Your task to perform on an android device: Open Google Chrome Image 0: 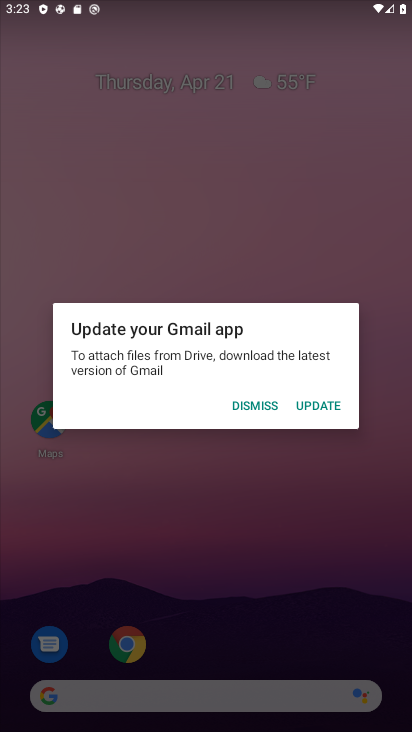
Step 0: press home button
Your task to perform on an android device: Open Google Chrome Image 1: 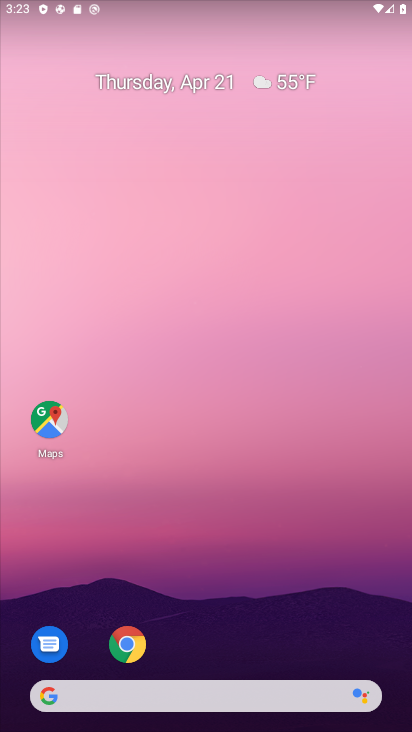
Step 1: click (120, 647)
Your task to perform on an android device: Open Google Chrome Image 2: 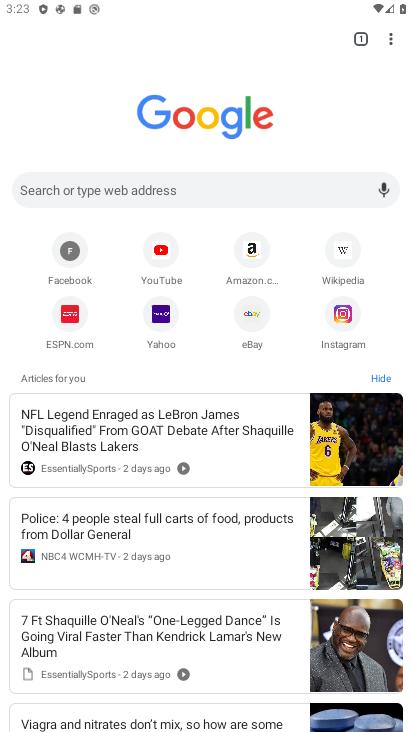
Step 2: task complete